Your task to perform on an android device: Search for Italian restaurants on Maps Image 0: 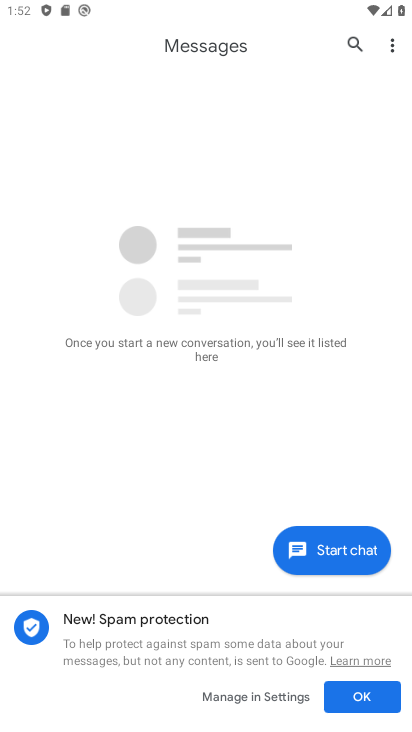
Step 0: press home button
Your task to perform on an android device: Search for Italian restaurants on Maps Image 1: 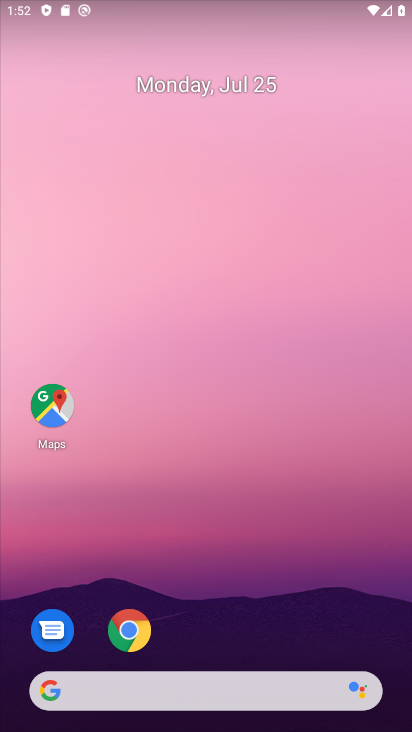
Step 1: drag from (232, 629) to (183, 145)
Your task to perform on an android device: Search for Italian restaurants on Maps Image 2: 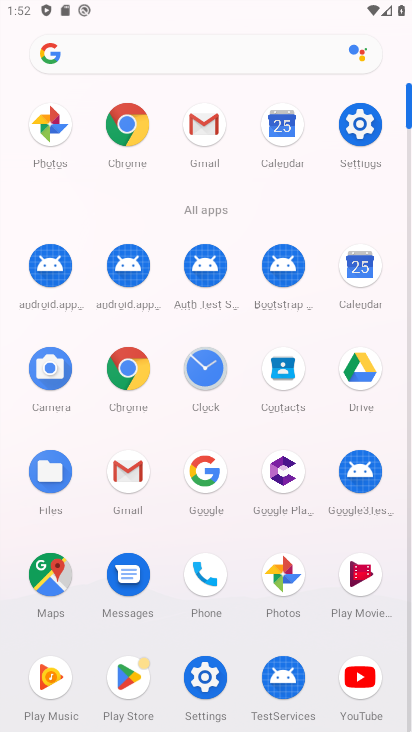
Step 2: click (59, 565)
Your task to perform on an android device: Search for Italian restaurants on Maps Image 3: 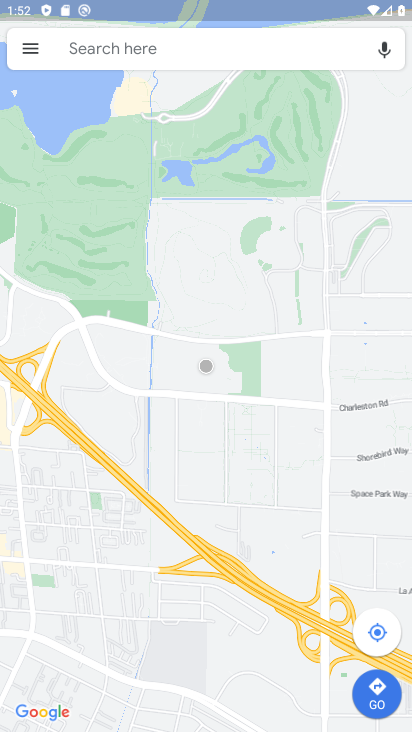
Step 3: click (127, 725)
Your task to perform on an android device: Search for Italian restaurants on Maps Image 4: 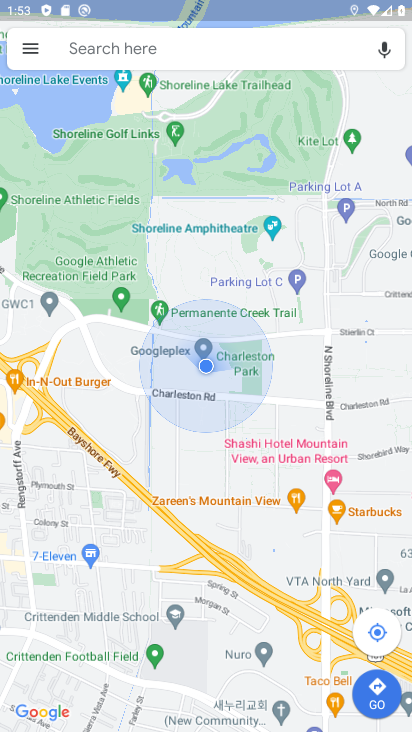
Step 4: click (230, 57)
Your task to perform on an android device: Search for Italian restaurants on Maps Image 5: 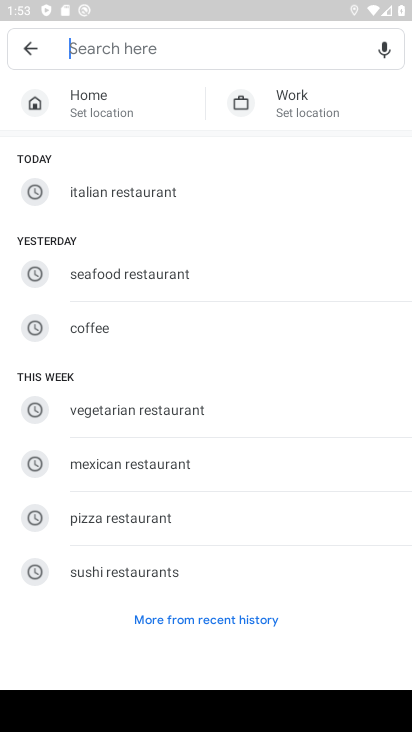
Step 5: drag from (159, 264) to (167, 125)
Your task to perform on an android device: Search for Italian restaurants on Maps Image 6: 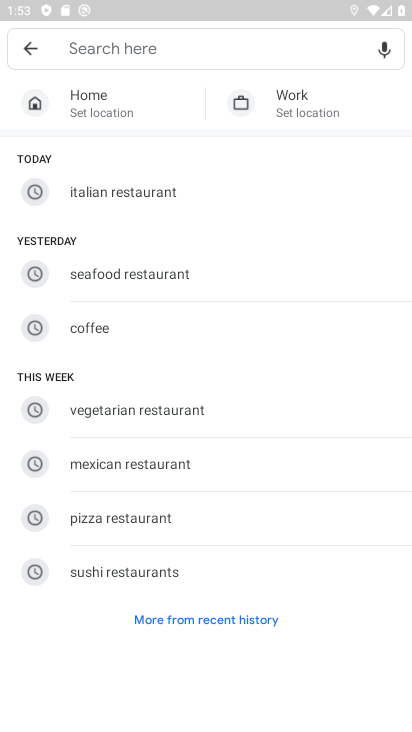
Step 6: click (178, 182)
Your task to perform on an android device: Search for Italian restaurants on Maps Image 7: 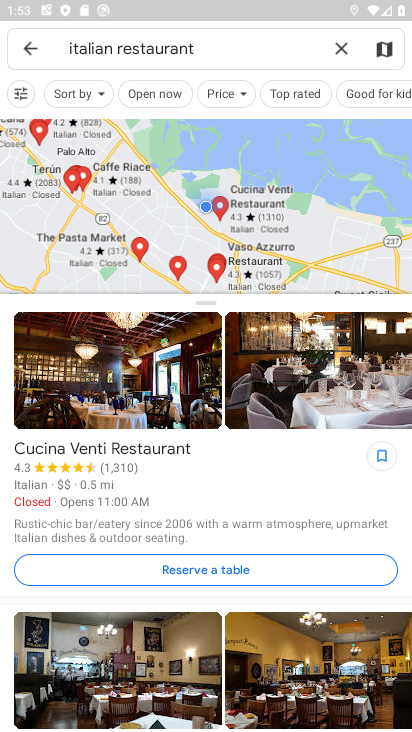
Step 7: task complete